Your task to perform on an android device: toggle airplane mode Image 0: 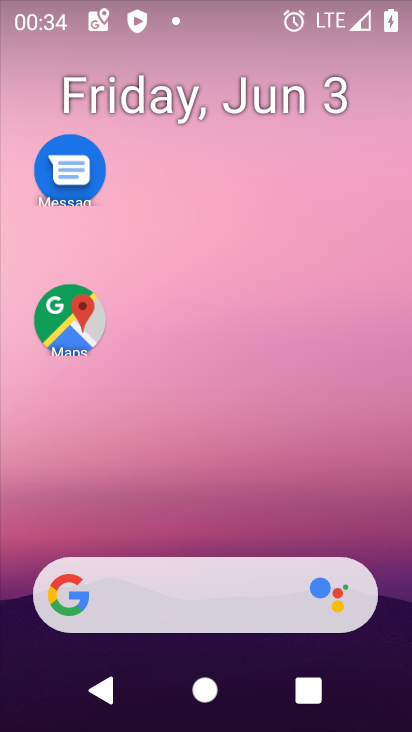
Step 0: press home button
Your task to perform on an android device: toggle airplane mode Image 1: 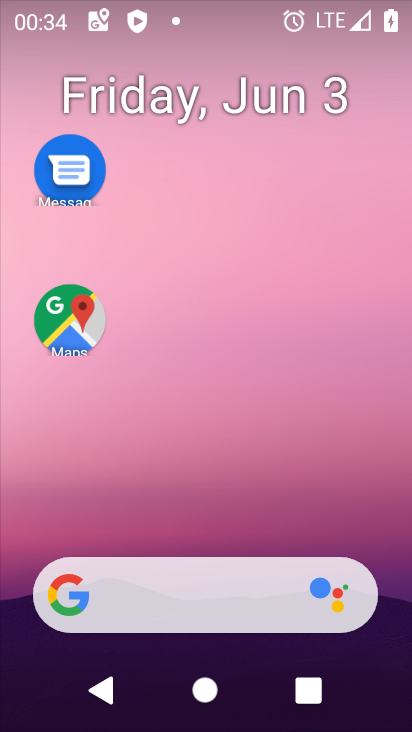
Step 1: drag from (348, 16) to (295, 726)
Your task to perform on an android device: toggle airplane mode Image 2: 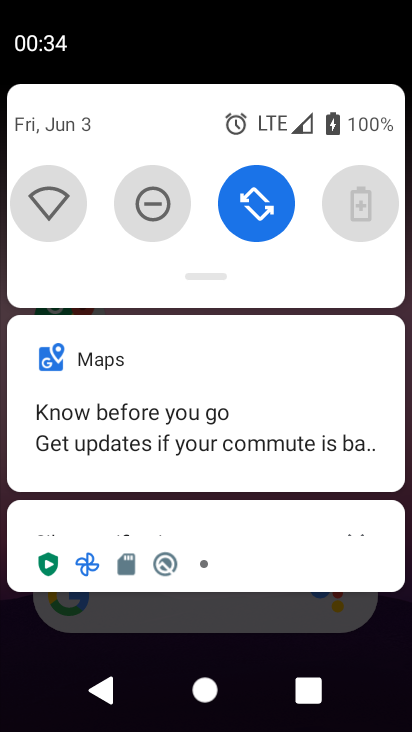
Step 2: drag from (297, 314) to (227, 661)
Your task to perform on an android device: toggle airplane mode Image 3: 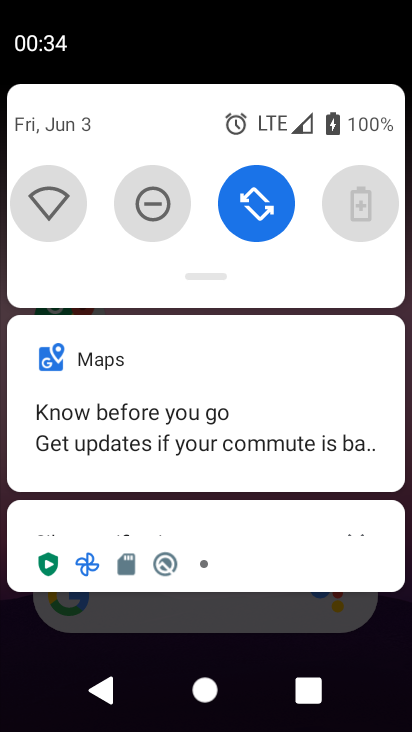
Step 3: drag from (190, 285) to (283, 726)
Your task to perform on an android device: toggle airplane mode Image 4: 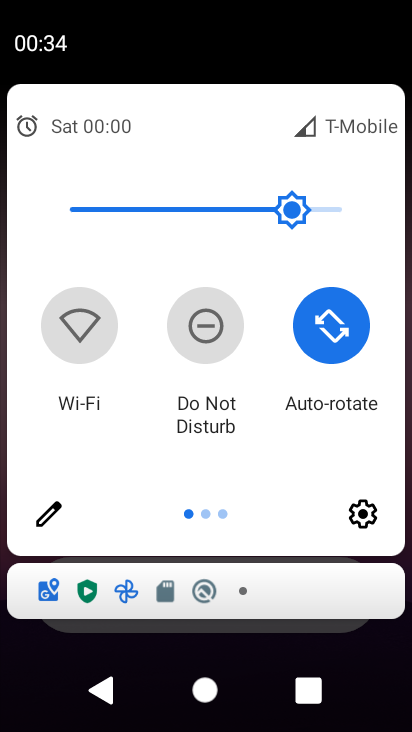
Step 4: drag from (401, 302) to (22, 346)
Your task to perform on an android device: toggle airplane mode Image 5: 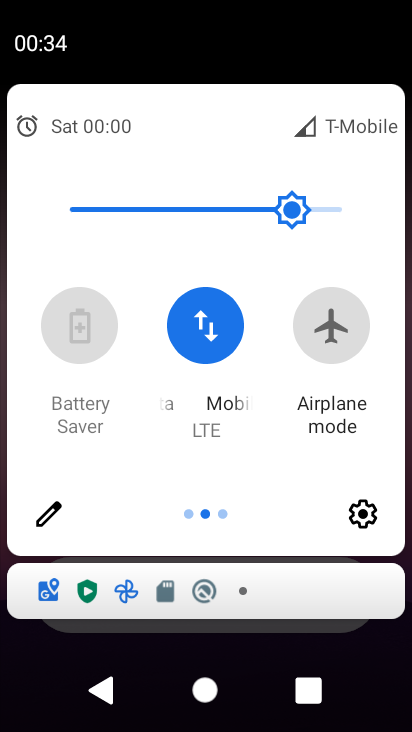
Step 5: click (309, 326)
Your task to perform on an android device: toggle airplane mode Image 6: 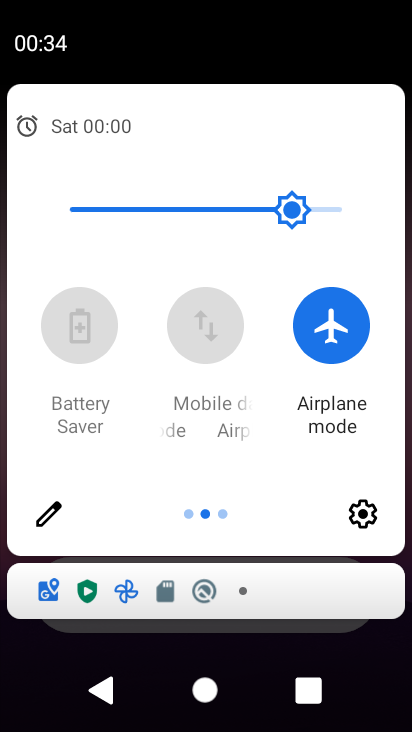
Step 6: task complete